Your task to perform on an android device: Go to sound settings Image 0: 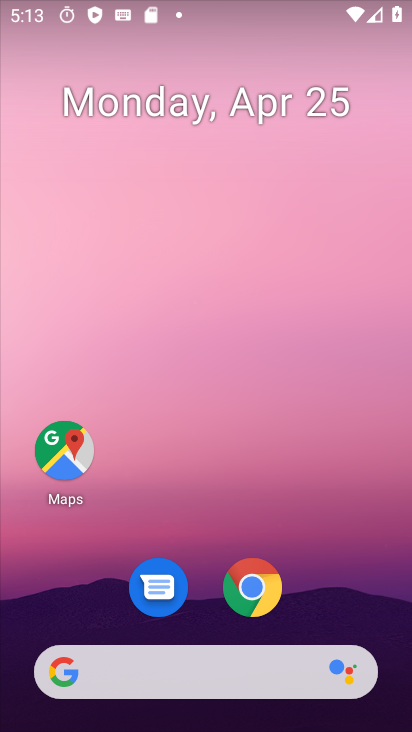
Step 0: drag from (310, 592) to (320, 71)
Your task to perform on an android device: Go to sound settings Image 1: 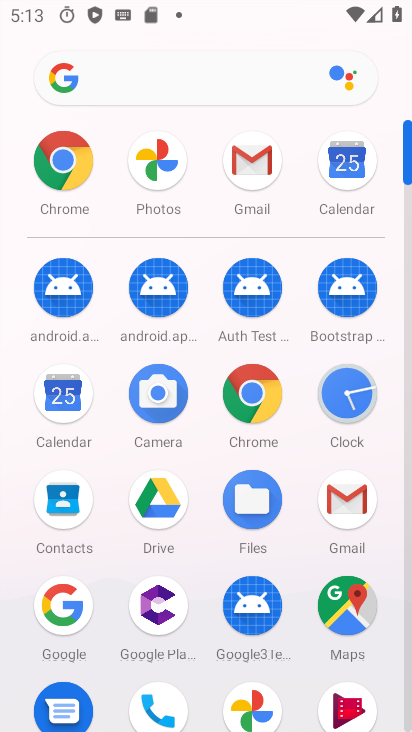
Step 1: drag from (269, 582) to (308, 204)
Your task to perform on an android device: Go to sound settings Image 2: 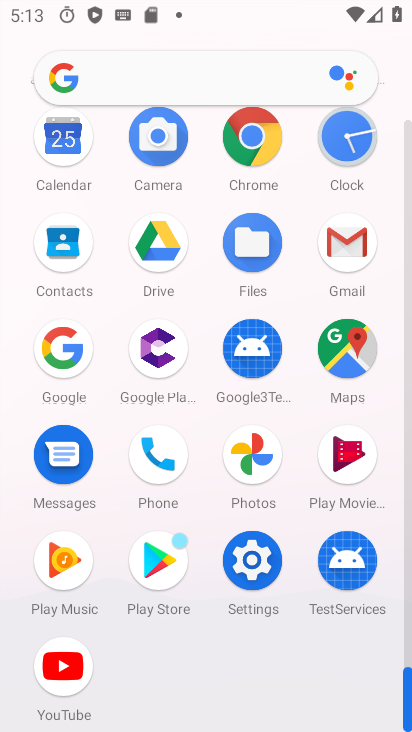
Step 2: click (261, 583)
Your task to perform on an android device: Go to sound settings Image 3: 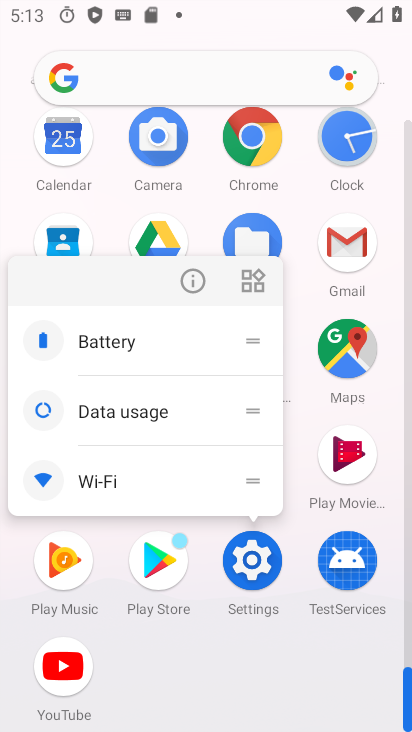
Step 3: click (258, 547)
Your task to perform on an android device: Go to sound settings Image 4: 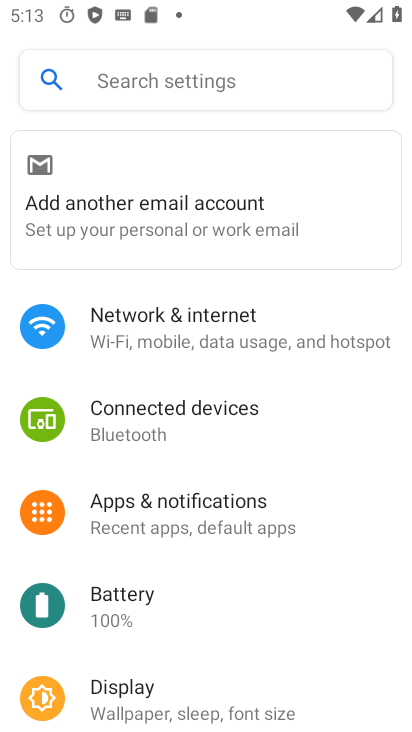
Step 4: drag from (191, 562) to (311, 143)
Your task to perform on an android device: Go to sound settings Image 5: 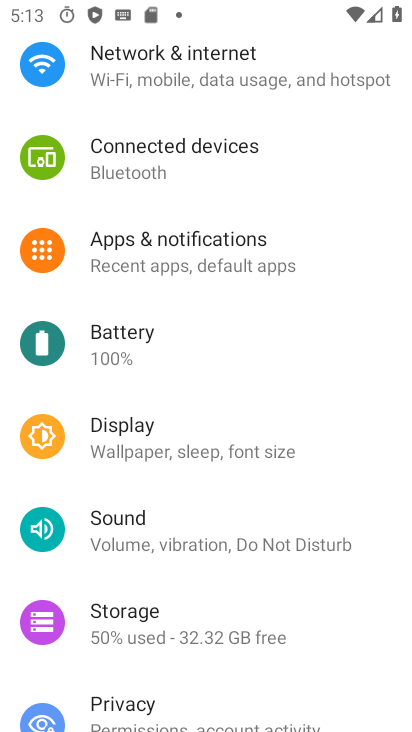
Step 5: click (145, 523)
Your task to perform on an android device: Go to sound settings Image 6: 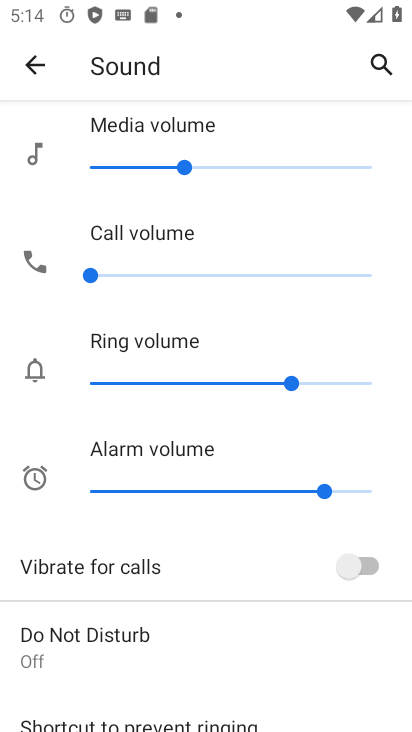
Step 6: task complete